Your task to perform on an android device: Is it going to rain this weekend? Image 0: 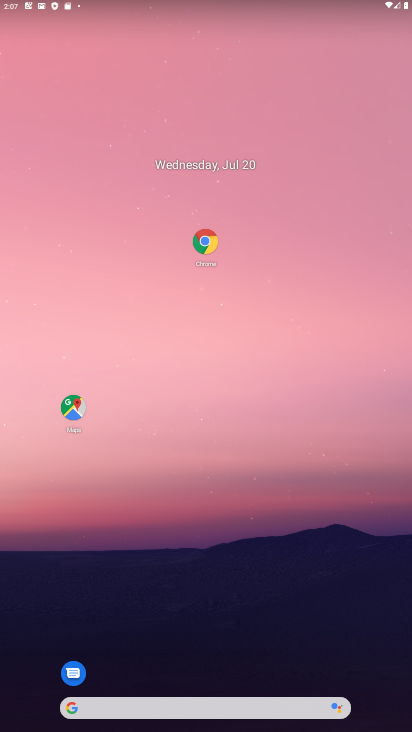
Step 0: drag from (253, 658) to (281, 14)
Your task to perform on an android device: Is it going to rain this weekend? Image 1: 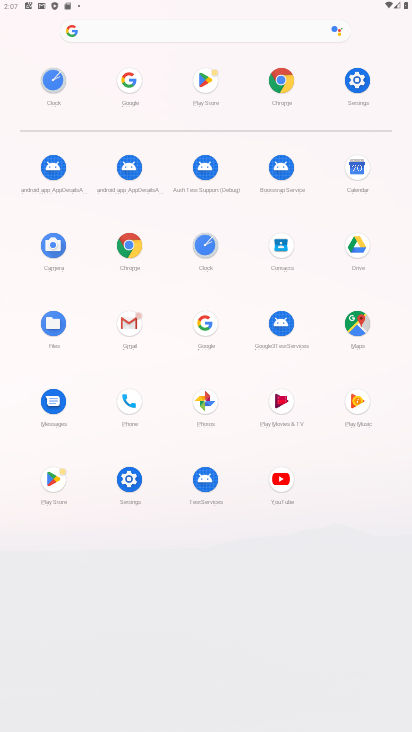
Step 1: click (205, 323)
Your task to perform on an android device: Is it going to rain this weekend? Image 2: 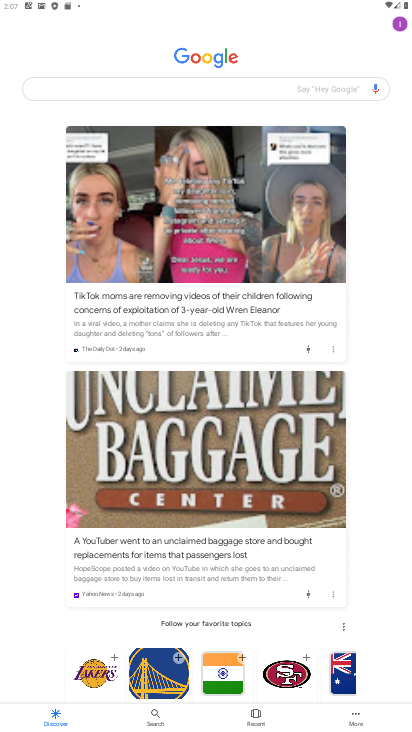
Step 2: click (209, 91)
Your task to perform on an android device: Is it going to rain this weekend? Image 3: 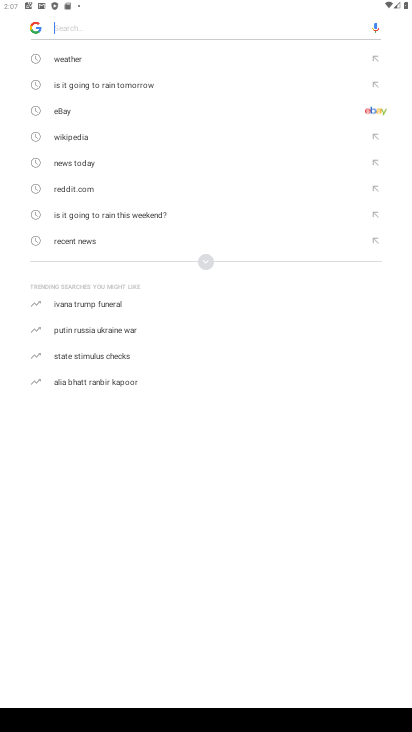
Step 3: type "is it going to rain this weekend?"
Your task to perform on an android device: Is it going to rain this weekend? Image 4: 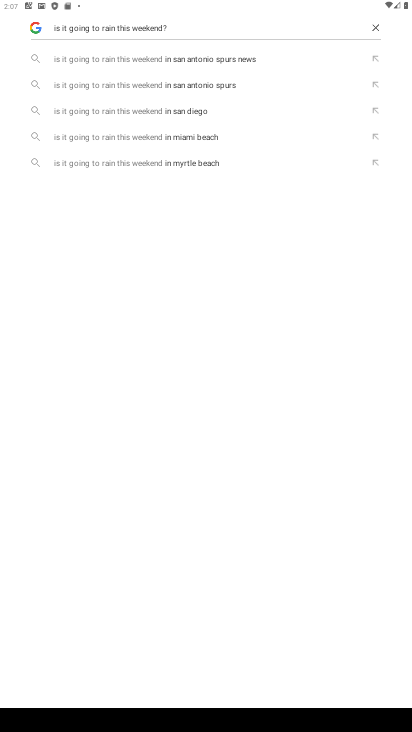
Step 4: click (376, 25)
Your task to perform on an android device: Is it going to rain this weekend? Image 5: 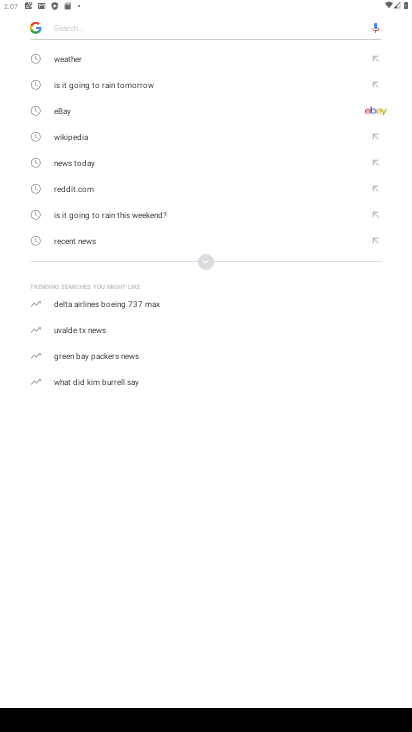
Step 5: click (133, 210)
Your task to perform on an android device: Is it going to rain this weekend? Image 6: 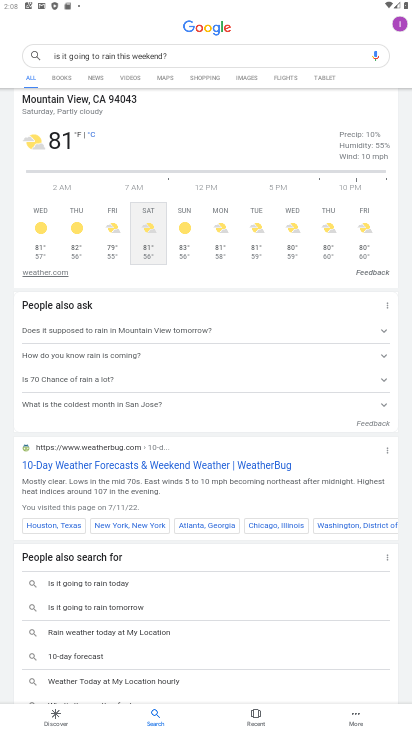
Step 6: task complete